Your task to perform on an android device: Open eBay Image 0: 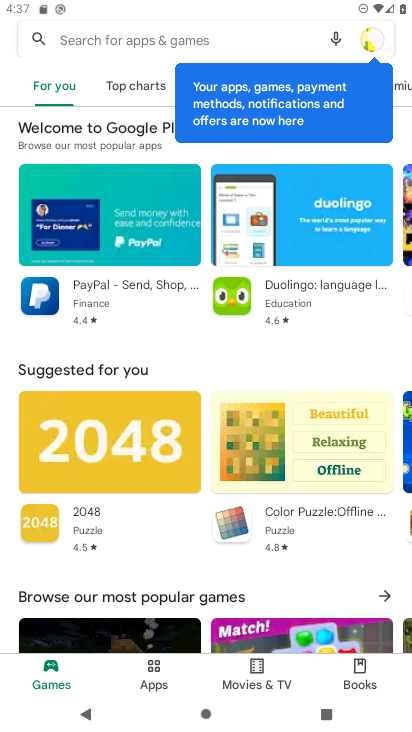
Step 0: press home button
Your task to perform on an android device: Open eBay Image 1: 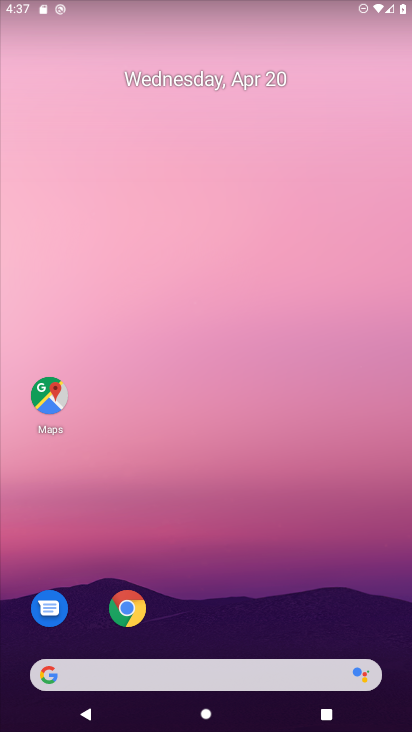
Step 1: drag from (362, 584) to (322, 136)
Your task to perform on an android device: Open eBay Image 2: 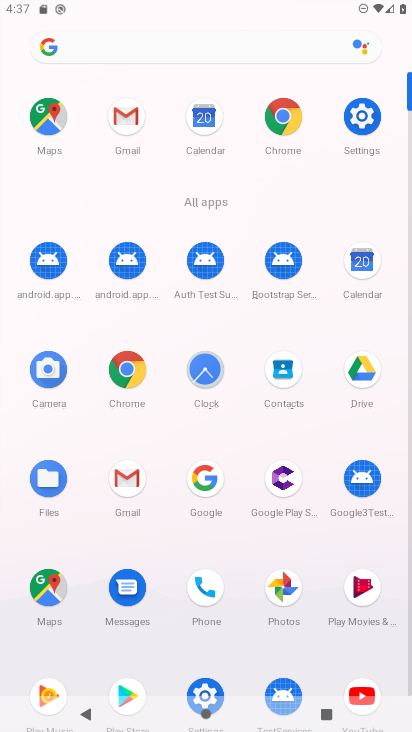
Step 2: click (277, 118)
Your task to perform on an android device: Open eBay Image 3: 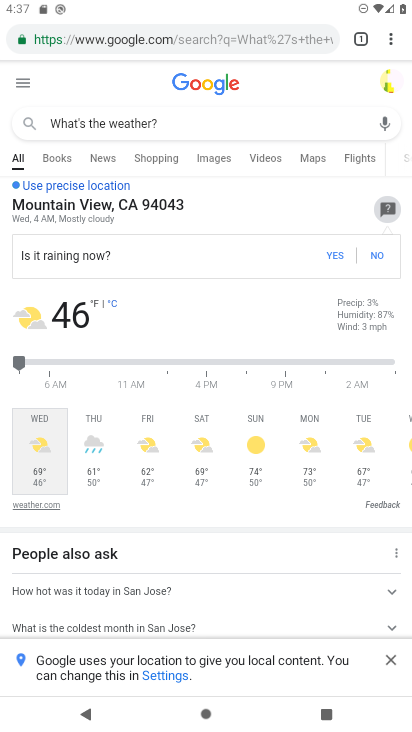
Step 3: click (360, 38)
Your task to perform on an android device: Open eBay Image 4: 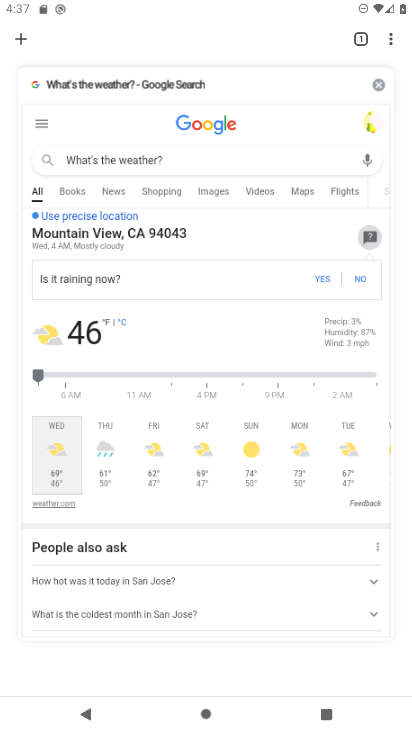
Step 4: click (24, 38)
Your task to perform on an android device: Open eBay Image 5: 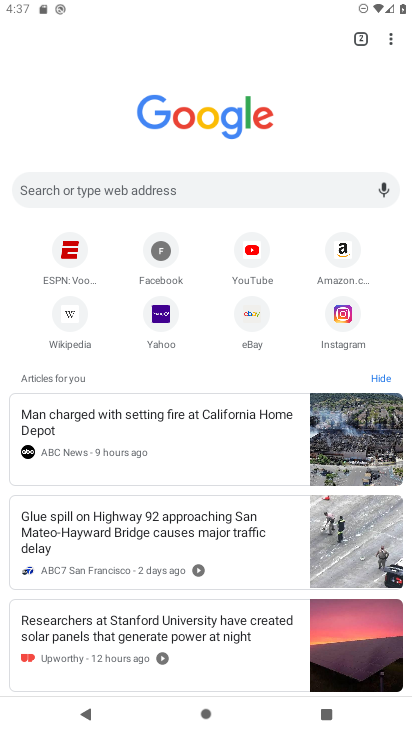
Step 5: click (249, 325)
Your task to perform on an android device: Open eBay Image 6: 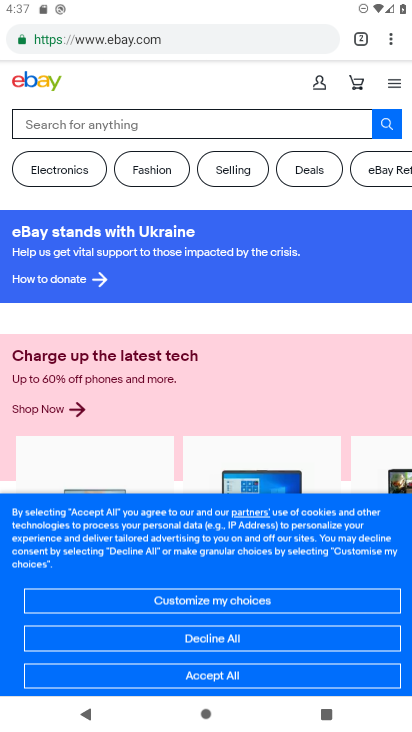
Step 6: task complete